Your task to perform on an android device: Open my contact list Image 0: 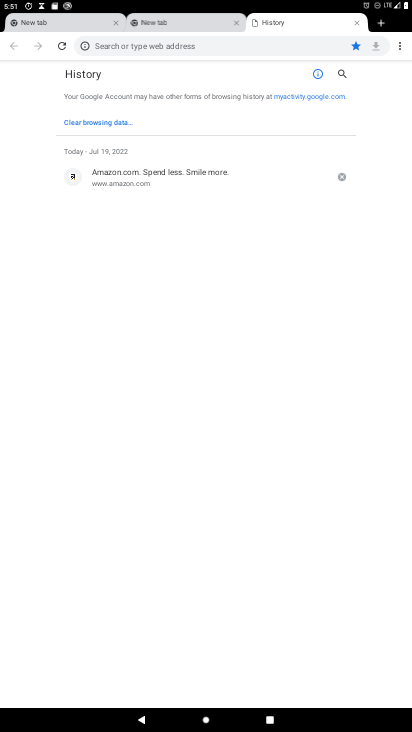
Step 0: press home button
Your task to perform on an android device: Open my contact list Image 1: 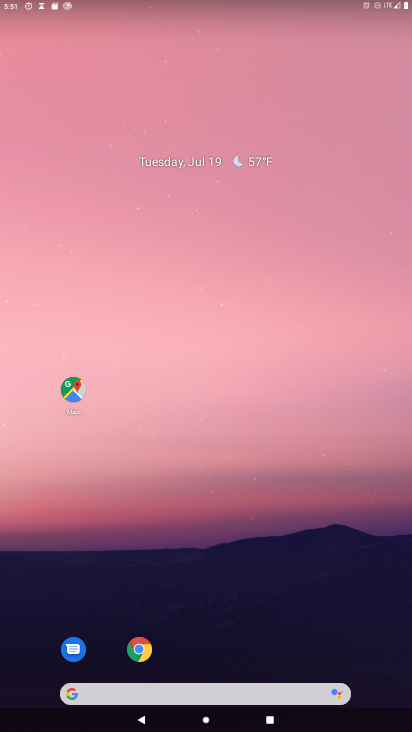
Step 1: drag from (189, 651) to (201, 245)
Your task to perform on an android device: Open my contact list Image 2: 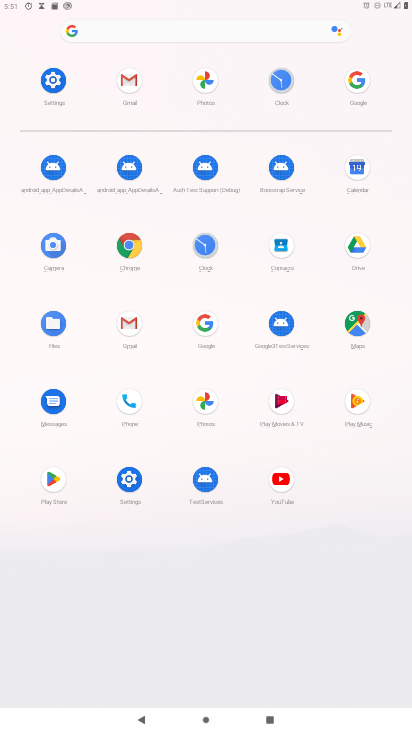
Step 2: click (294, 255)
Your task to perform on an android device: Open my contact list Image 3: 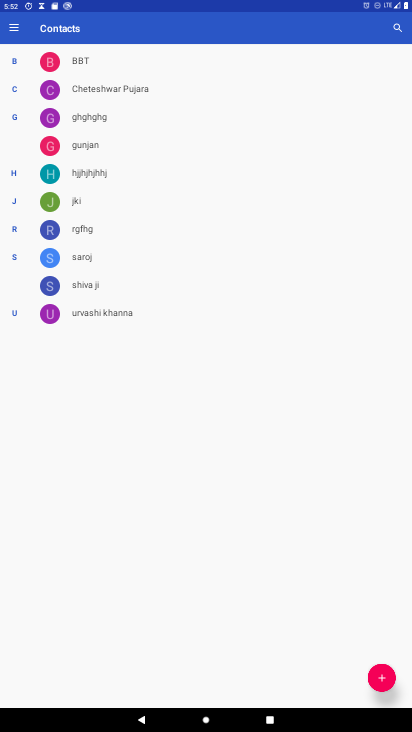
Step 3: task complete